Your task to perform on an android device: turn off priority inbox in the gmail app Image 0: 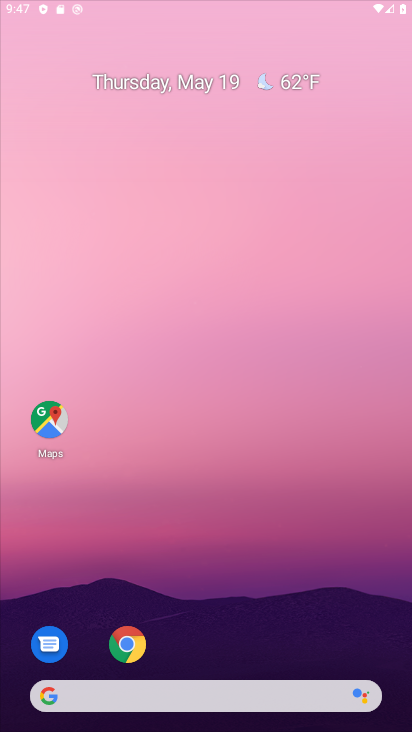
Step 0: drag from (369, 680) to (185, 187)
Your task to perform on an android device: turn off priority inbox in the gmail app Image 1: 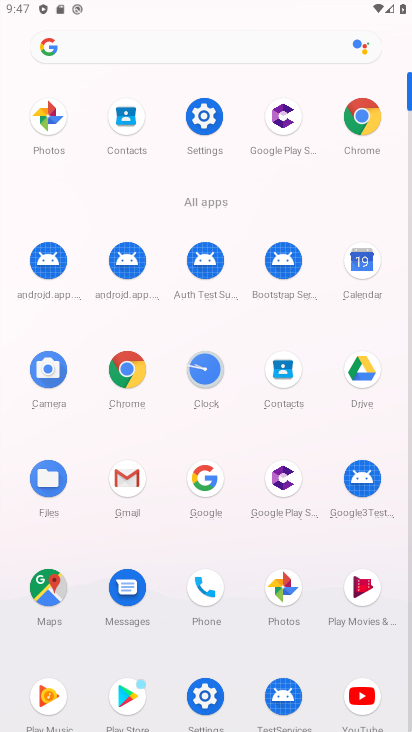
Step 1: click (126, 469)
Your task to perform on an android device: turn off priority inbox in the gmail app Image 2: 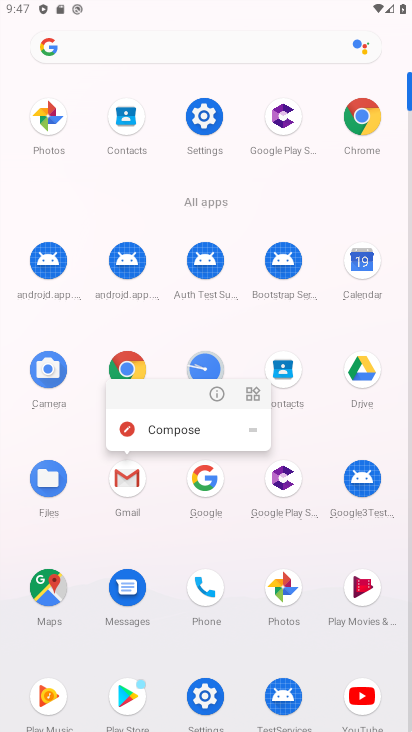
Step 2: click (128, 447)
Your task to perform on an android device: turn off priority inbox in the gmail app Image 3: 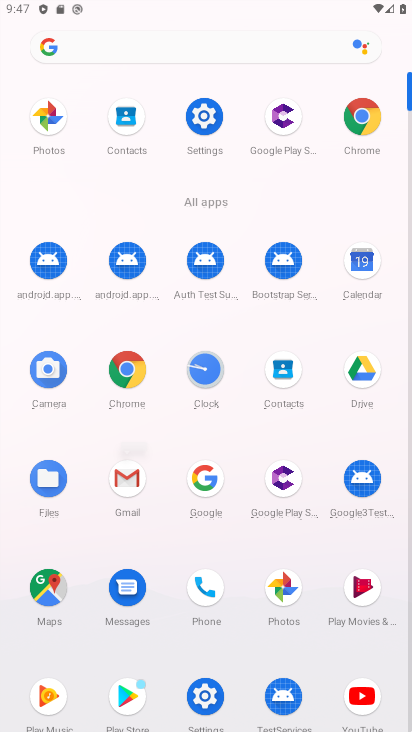
Step 3: click (127, 464)
Your task to perform on an android device: turn off priority inbox in the gmail app Image 4: 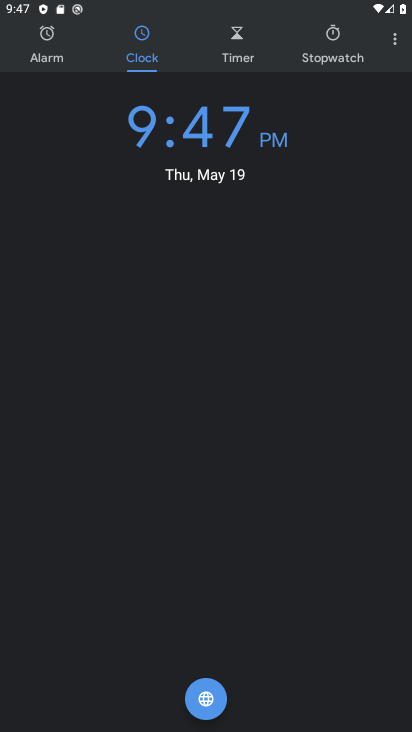
Step 4: press back button
Your task to perform on an android device: turn off priority inbox in the gmail app Image 5: 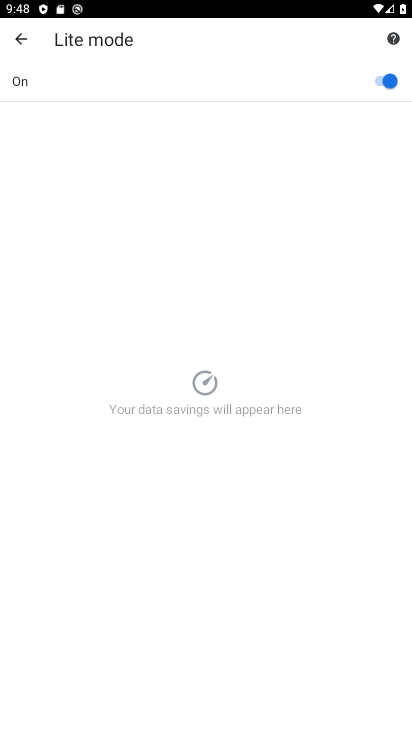
Step 5: press home button
Your task to perform on an android device: turn off priority inbox in the gmail app Image 6: 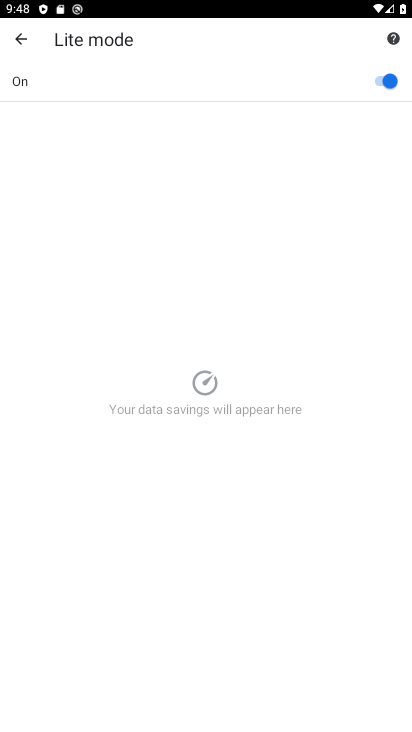
Step 6: press home button
Your task to perform on an android device: turn off priority inbox in the gmail app Image 7: 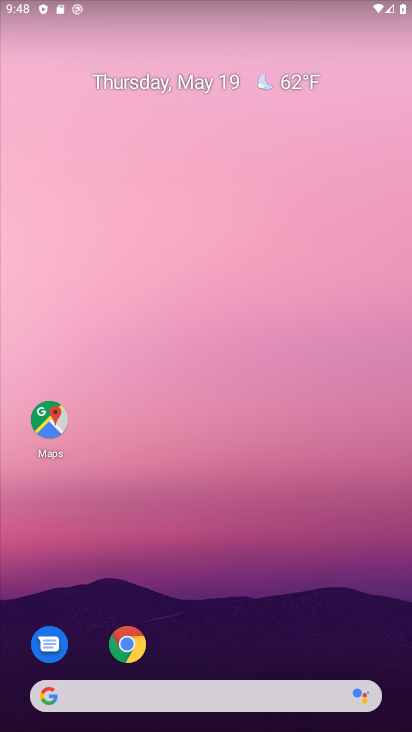
Step 7: drag from (280, 668) to (67, 89)
Your task to perform on an android device: turn off priority inbox in the gmail app Image 8: 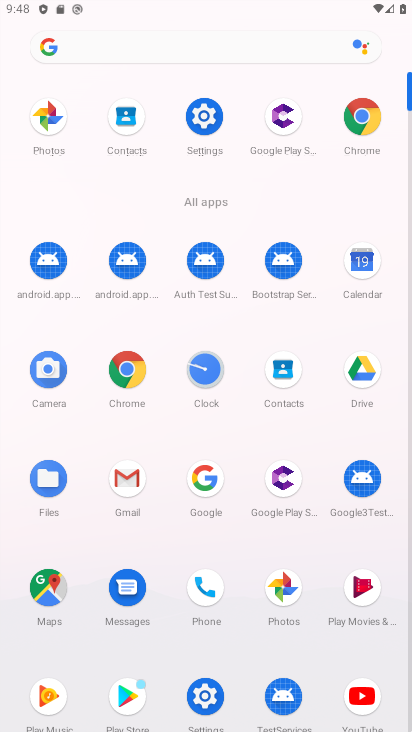
Step 8: click (122, 483)
Your task to perform on an android device: turn off priority inbox in the gmail app Image 9: 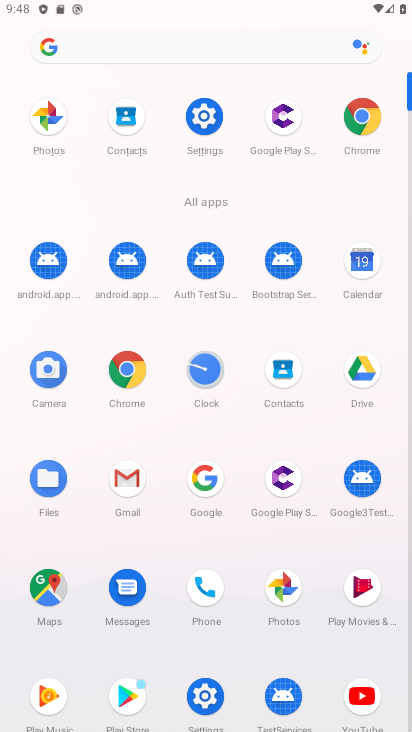
Step 9: click (123, 483)
Your task to perform on an android device: turn off priority inbox in the gmail app Image 10: 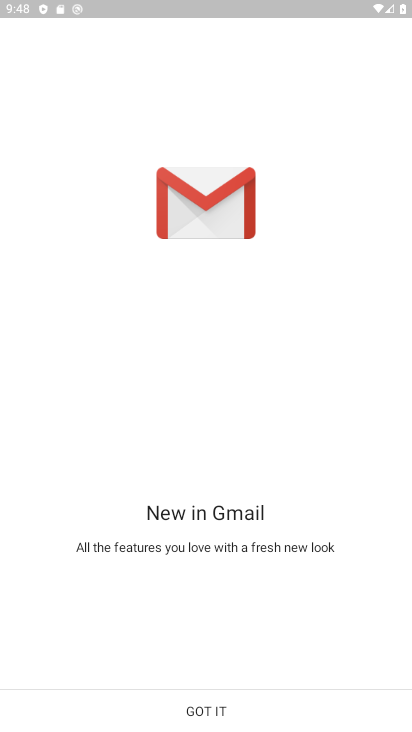
Step 10: click (210, 710)
Your task to perform on an android device: turn off priority inbox in the gmail app Image 11: 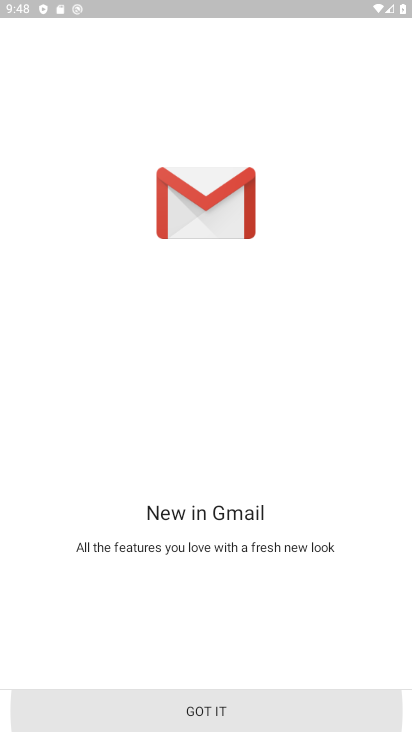
Step 11: click (210, 710)
Your task to perform on an android device: turn off priority inbox in the gmail app Image 12: 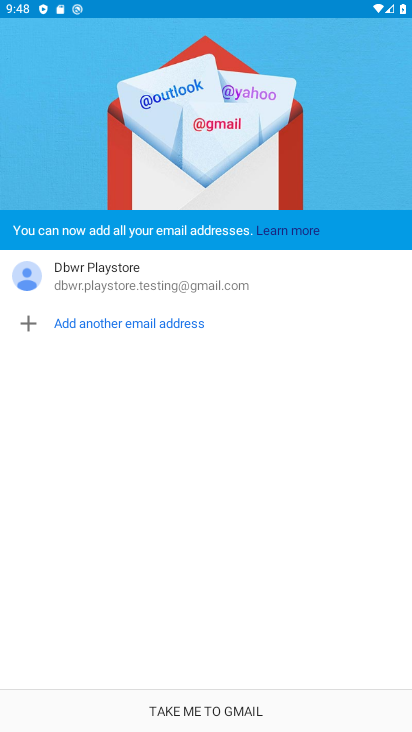
Step 12: click (215, 726)
Your task to perform on an android device: turn off priority inbox in the gmail app Image 13: 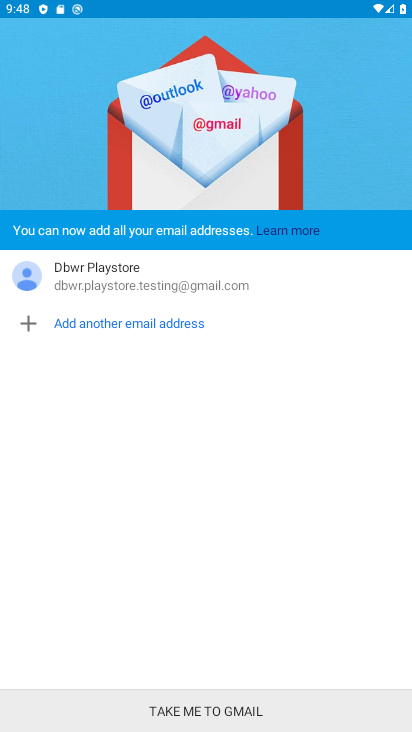
Step 13: click (212, 707)
Your task to perform on an android device: turn off priority inbox in the gmail app Image 14: 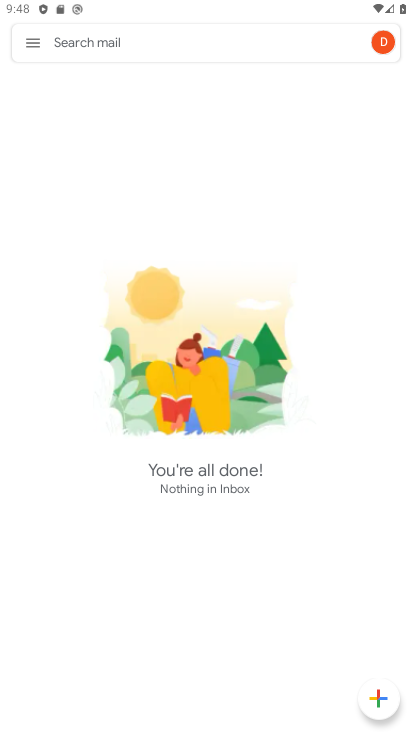
Step 14: click (34, 50)
Your task to perform on an android device: turn off priority inbox in the gmail app Image 15: 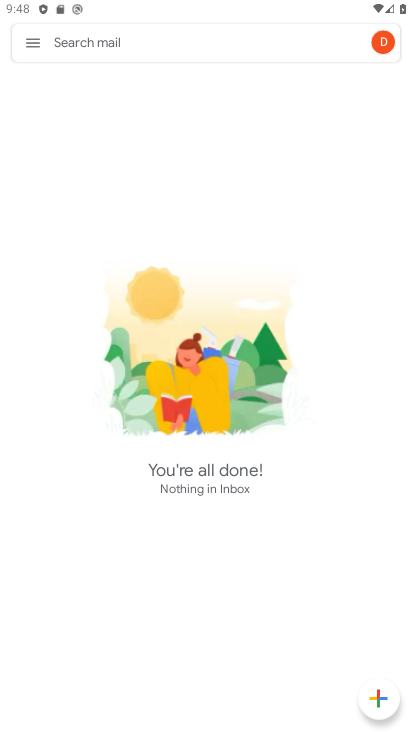
Step 15: click (34, 39)
Your task to perform on an android device: turn off priority inbox in the gmail app Image 16: 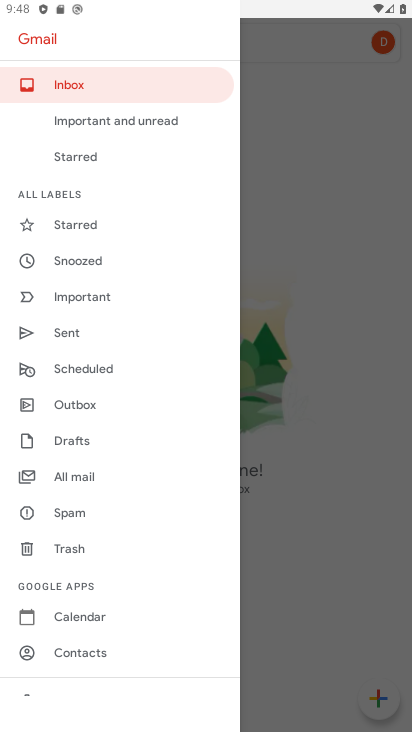
Step 16: drag from (89, 636) to (81, 222)
Your task to perform on an android device: turn off priority inbox in the gmail app Image 17: 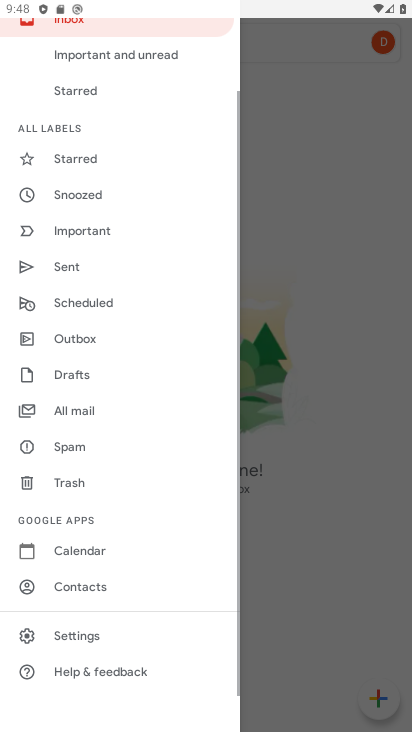
Step 17: drag from (131, 492) to (140, 10)
Your task to perform on an android device: turn off priority inbox in the gmail app Image 18: 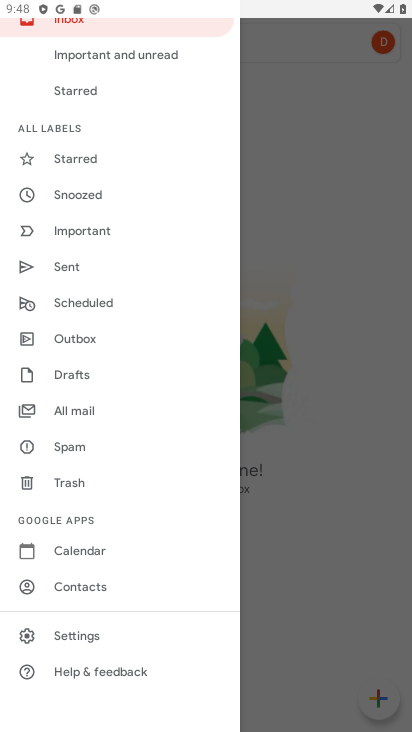
Step 18: click (78, 633)
Your task to perform on an android device: turn off priority inbox in the gmail app Image 19: 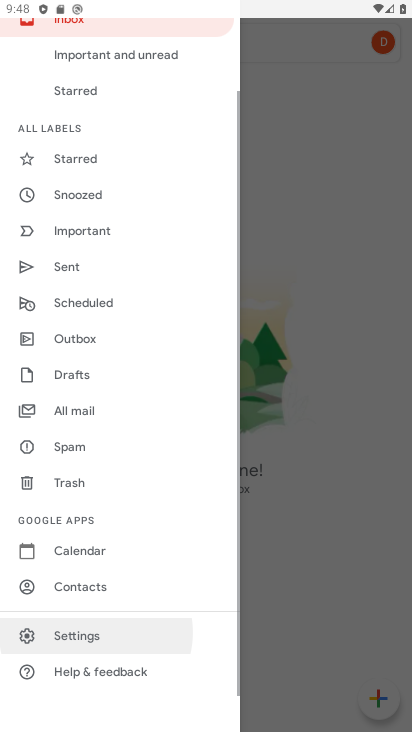
Step 19: click (78, 633)
Your task to perform on an android device: turn off priority inbox in the gmail app Image 20: 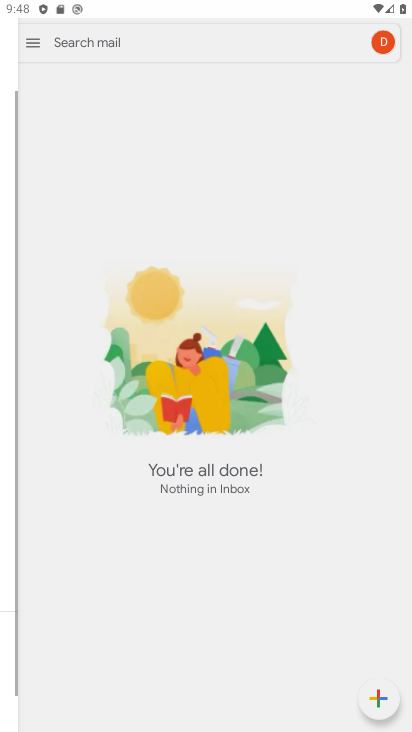
Step 20: click (78, 633)
Your task to perform on an android device: turn off priority inbox in the gmail app Image 21: 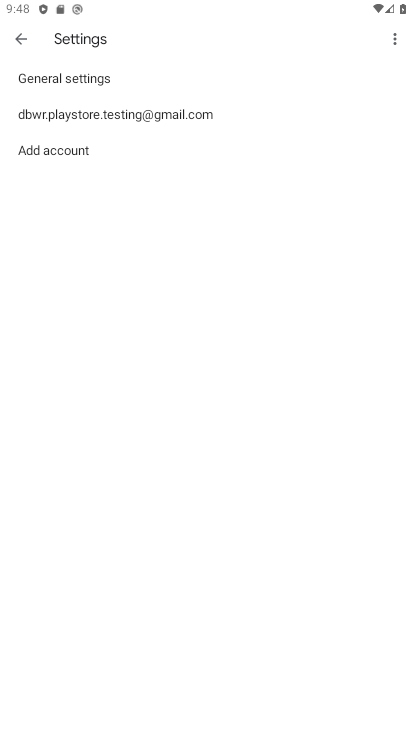
Step 21: click (61, 123)
Your task to perform on an android device: turn off priority inbox in the gmail app Image 22: 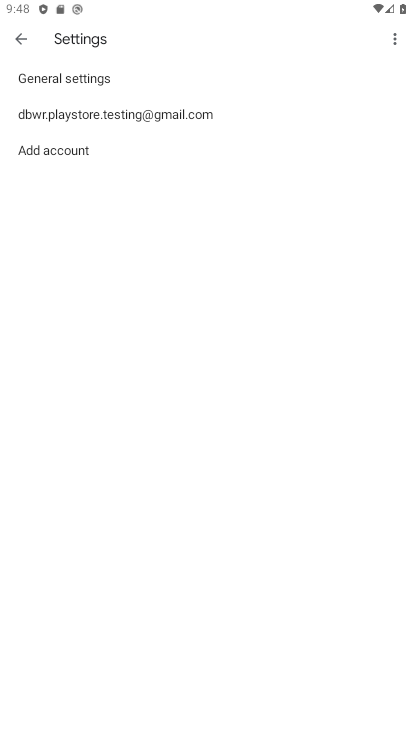
Step 22: click (65, 118)
Your task to perform on an android device: turn off priority inbox in the gmail app Image 23: 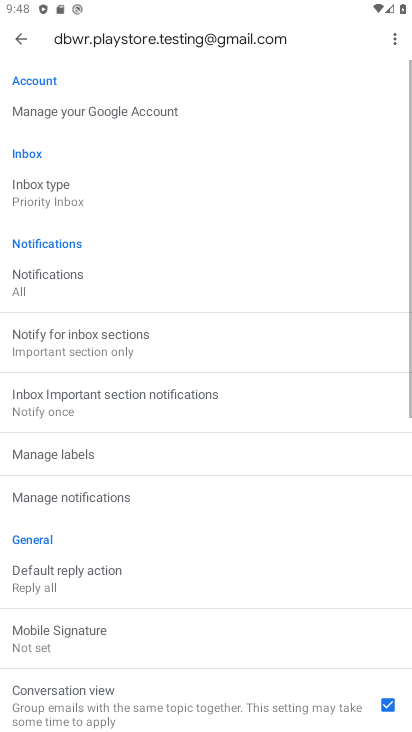
Step 23: click (68, 114)
Your task to perform on an android device: turn off priority inbox in the gmail app Image 24: 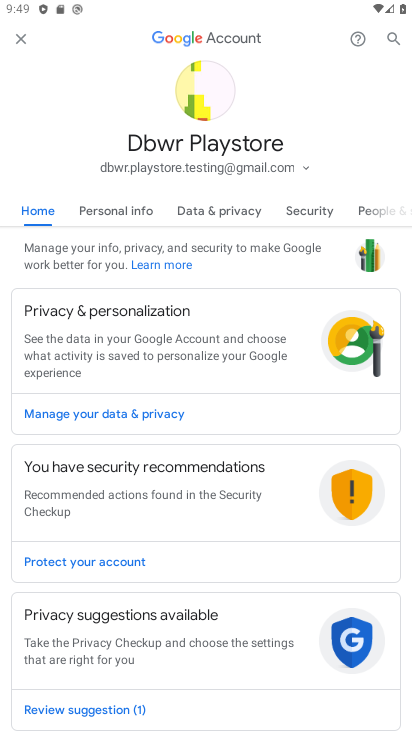
Step 24: click (19, 41)
Your task to perform on an android device: turn off priority inbox in the gmail app Image 25: 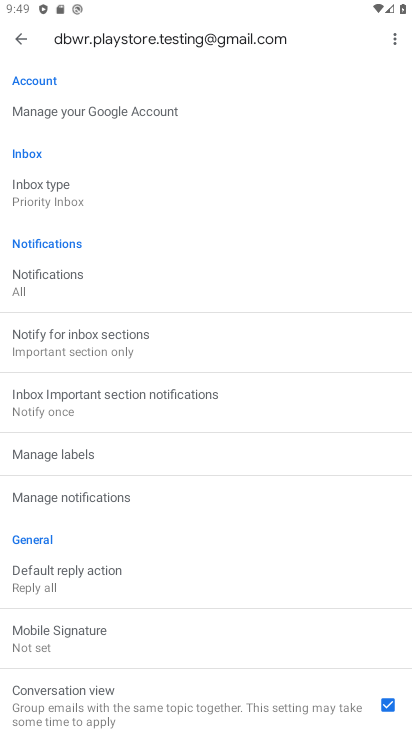
Step 25: click (32, 196)
Your task to perform on an android device: turn off priority inbox in the gmail app Image 26: 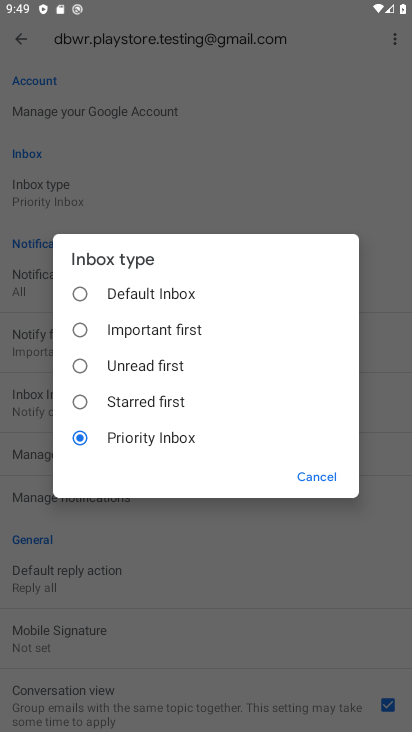
Step 26: click (70, 400)
Your task to perform on an android device: turn off priority inbox in the gmail app Image 27: 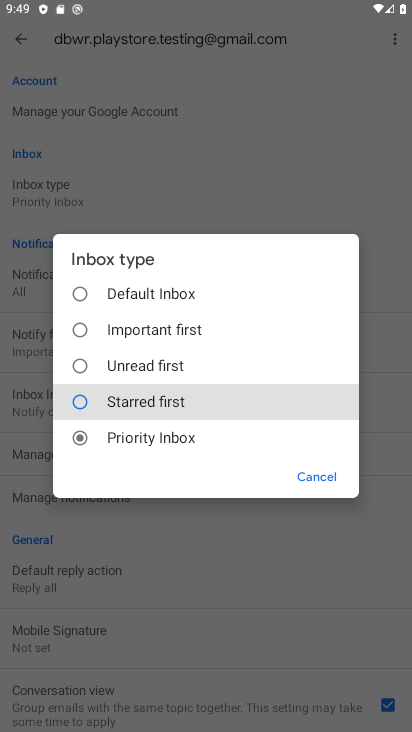
Step 27: click (75, 400)
Your task to perform on an android device: turn off priority inbox in the gmail app Image 28: 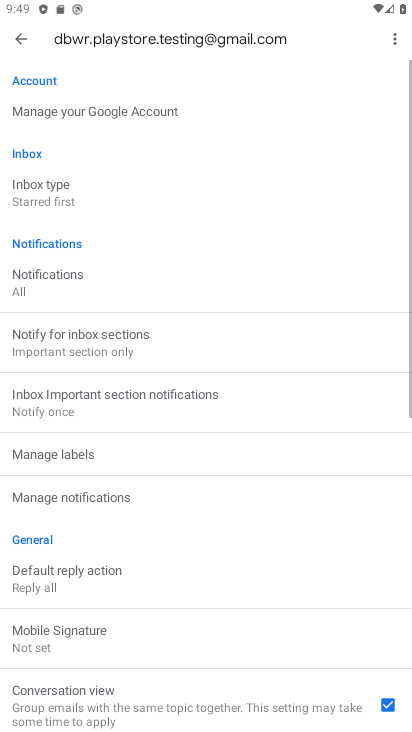
Step 28: click (75, 400)
Your task to perform on an android device: turn off priority inbox in the gmail app Image 29: 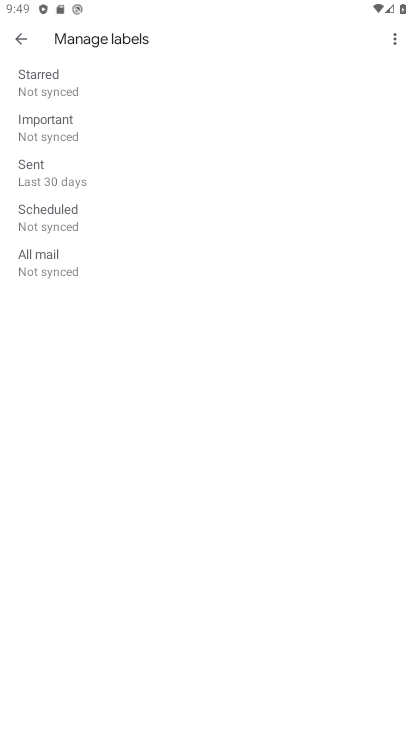
Step 29: click (21, 42)
Your task to perform on an android device: turn off priority inbox in the gmail app Image 30: 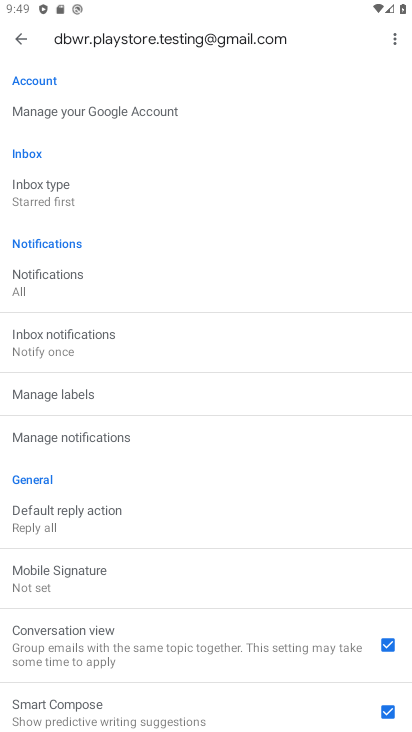
Step 30: task complete